Your task to perform on an android device: turn vacation reply on in the gmail app Image 0: 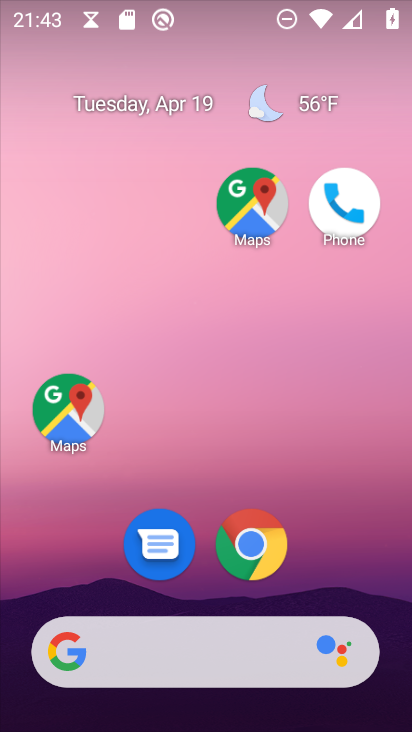
Step 0: drag from (151, 646) to (347, 51)
Your task to perform on an android device: turn vacation reply on in the gmail app Image 1: 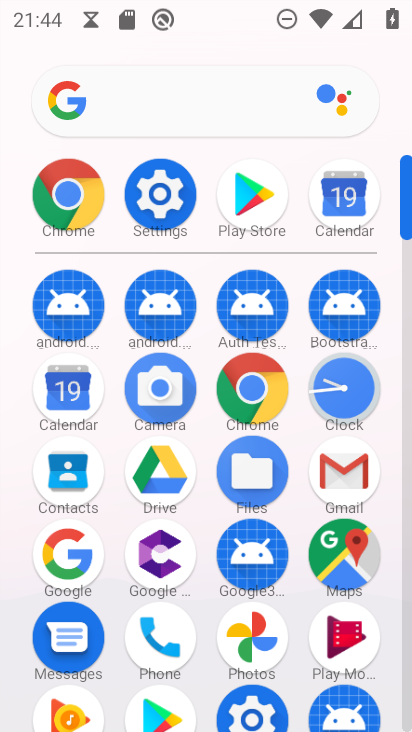
Step 1: click (335, 483)
Your task to perform on an android device: turn vacation reply on in the gmail app Image 2: 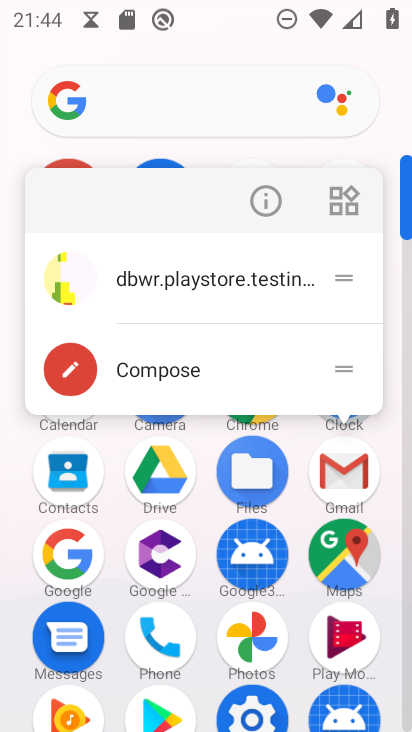
Step 2: click (340, 475)
Your task to perform on an android device: turn vacation reply on in the gmail app Image 3: 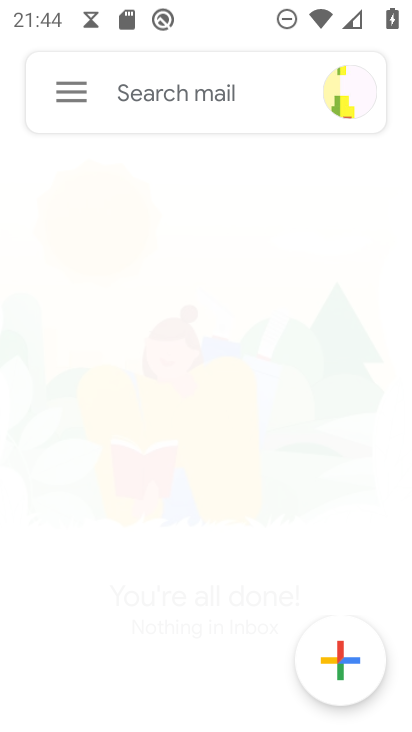
Step 3: click (72, 94)
Your task to perform on an android device: turn vacation reply on in the gmail app Image 4: 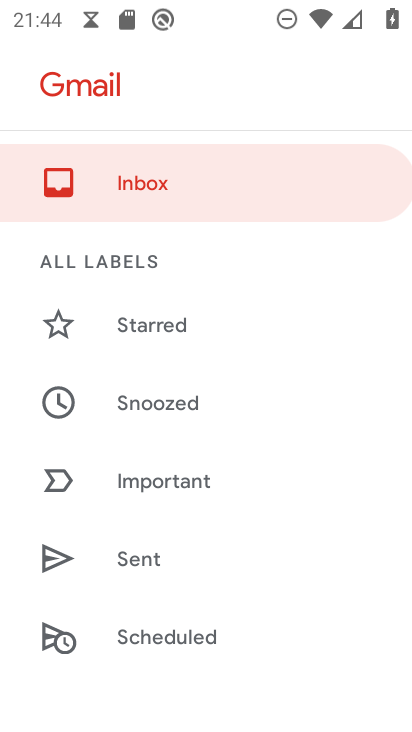
Step 4: drag from (197, 590) to (358, 129)
Your task to perform on an android device: turn vacation reply on in the gmail app Image 5: 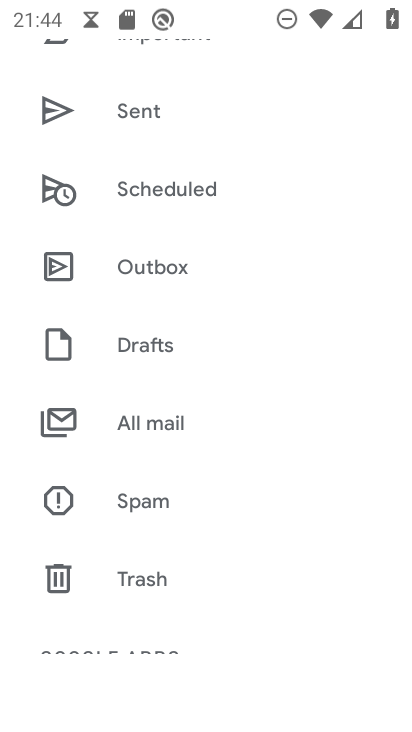
Step 5: drag from (248, 539) to (352, 137)
Your task to perform on an android device: turn vacation reply on in the gmail app Image 6: 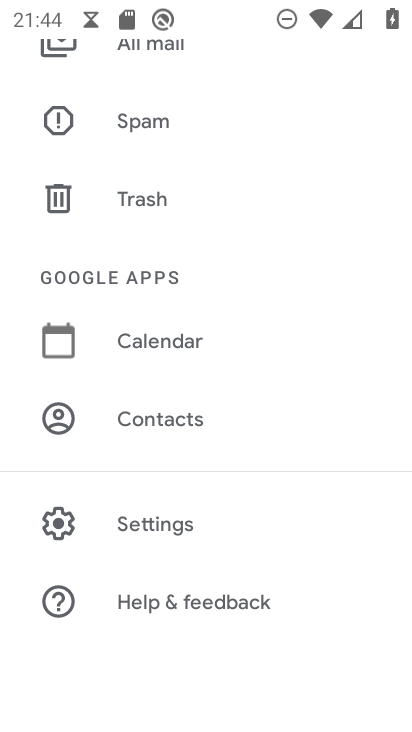
Step 6: click (161, 526)
Your task to perform on an android device: turn vacation reply on in the gmail app Image 7: 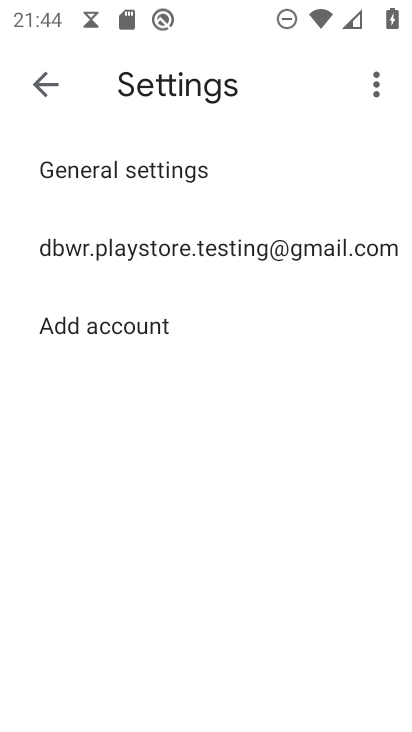
Step 7: click (213, 238)
Your task to perform on an android device: turn vacation reply on in the gmail app Image 8: 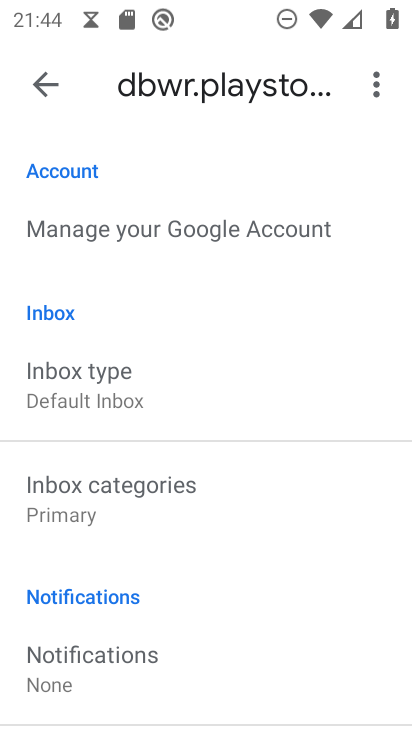
Step 8: drag from (169, 572) to (330, 150)
Your task to perform on an android device: turn vacation reply on in the gmail app Image 9: 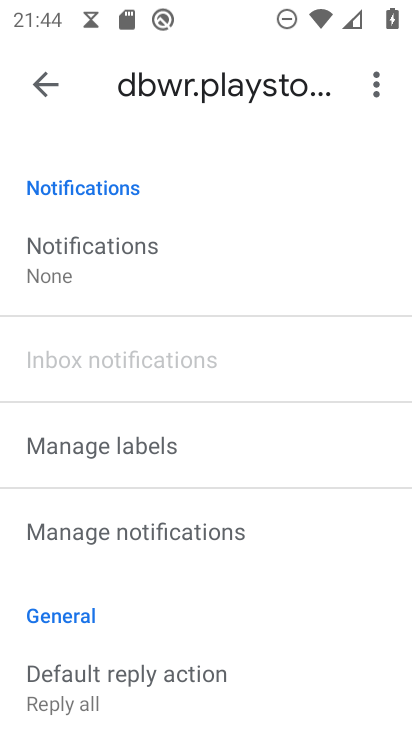
Step 9: drag from (214, 530) to (341, 182)
Your task to perform on an android device: turn vacation reply on in the gmail app Image 10: 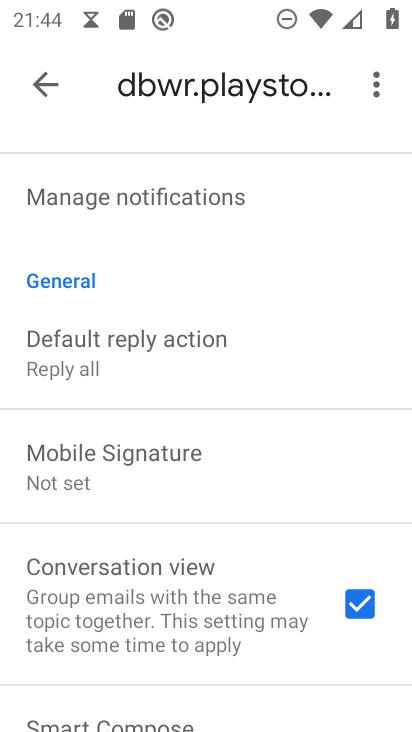
Step 10: drag from (187, 650) to (367, 175)
Your task to perform on an android device: turn vacation reply on in the gmail app Image 11: 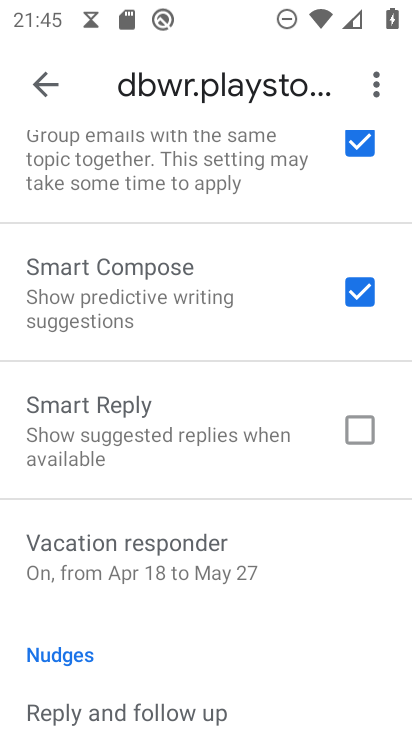
Step 11: click (199, 558)
Your task to perform on an android device: turn vacation reply on in the gmail app Image 12: 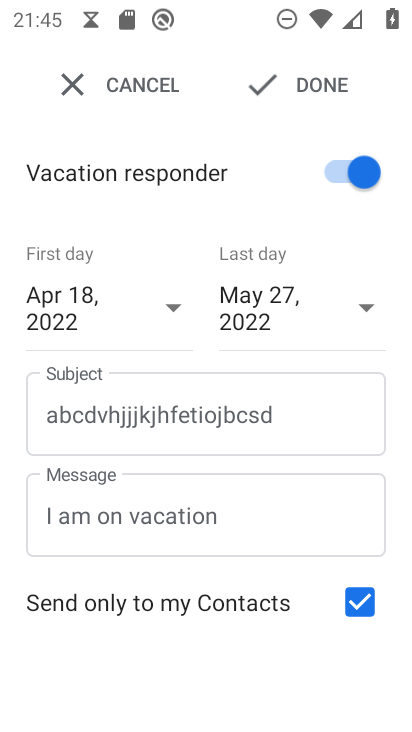
Step 12: task complete